Your task to perform on an android device: Go to Google Image 0: 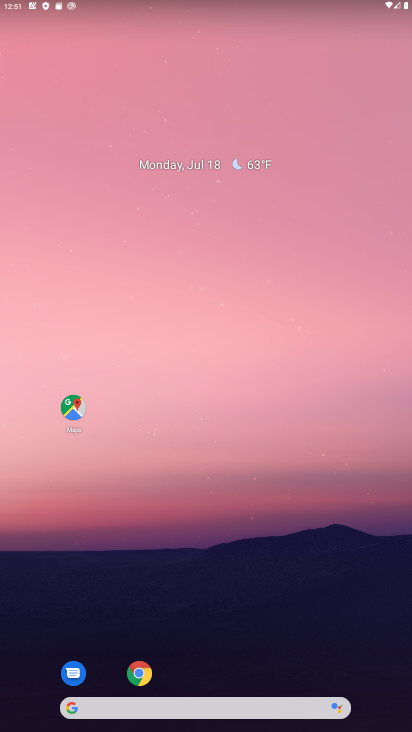
Step 0: drag from (209, 624) to (107, 126)
Your task to perform on an android device: Go to Google Image 1: 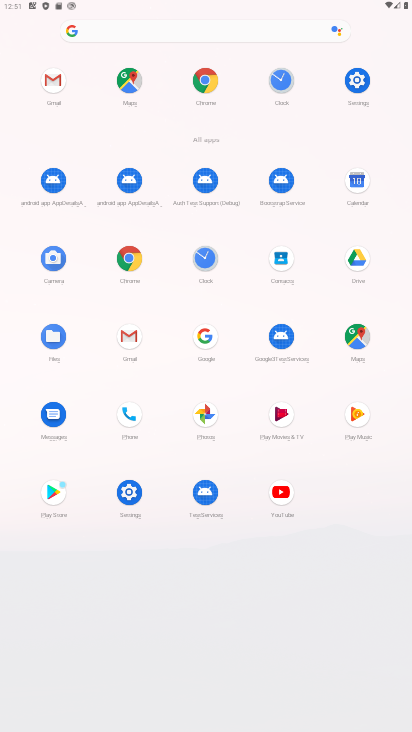
Step 1: click (199, 328)
Your task to perform on an android device: Go to Google Image 2: 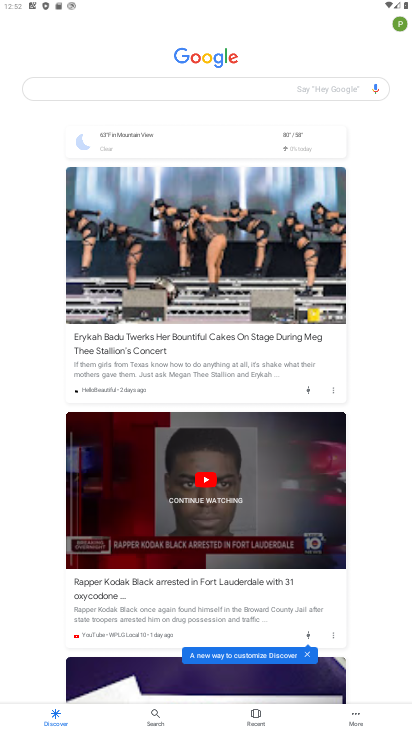
Step 2: task complete